Your task to perform on an android device: turn pop-ups on in chrome Image 0: 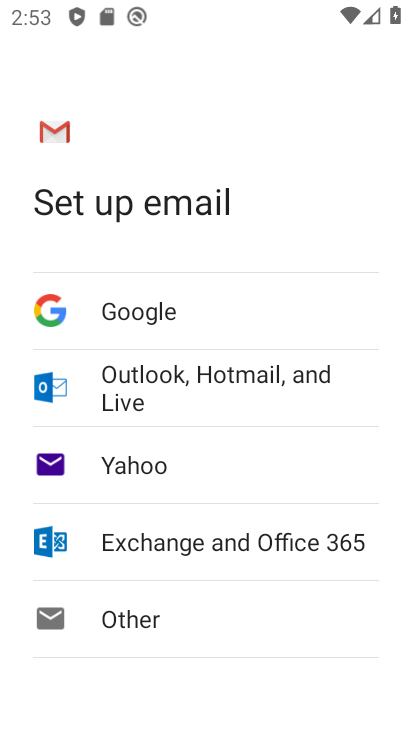
Step 0: press home button
Your task to perform on an android device: turn pop-ups on in chrome Image 1: 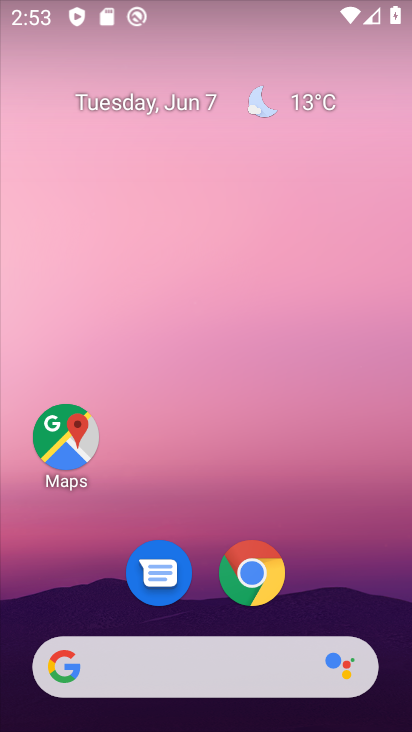
Step 1: click (246, 570)
Your task to perform on an android device: turn pop-ups on in chrome Image 2: 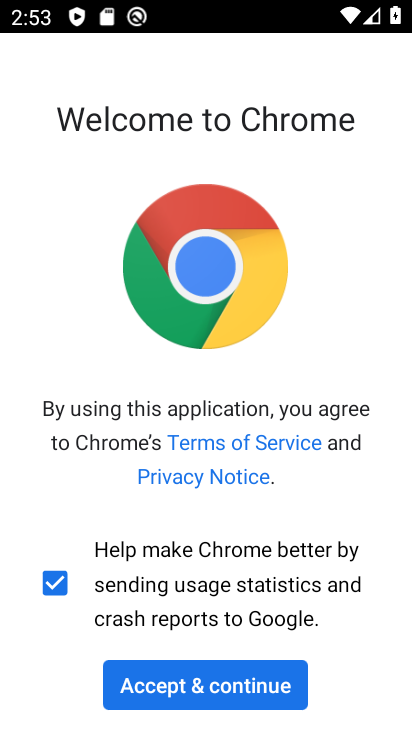
Step 2: click (161, 675)
Your task to perform on an android device: turn pop-ups on in chrome Image 3: 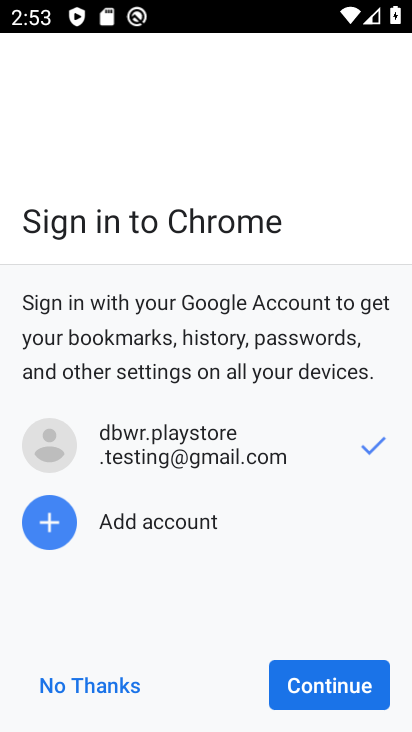
Step 3: click (76, 677)
Your task to perform on an android device: turn pop-ups on in chrome Image 4: 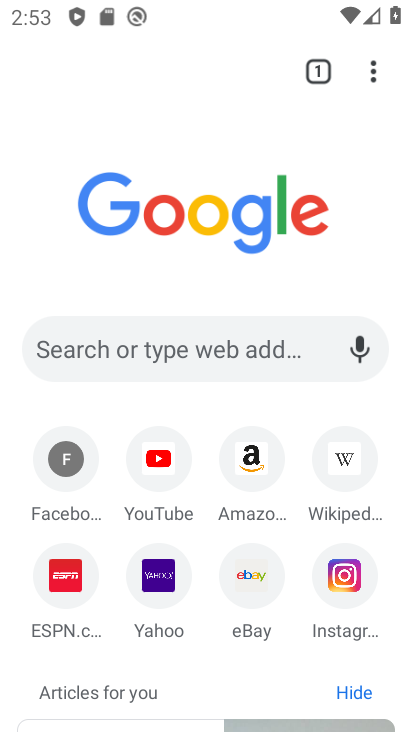
Step 4: click (372, 76)
Your task to perform on an android device: turn pop-ups on in chrome Image 5: 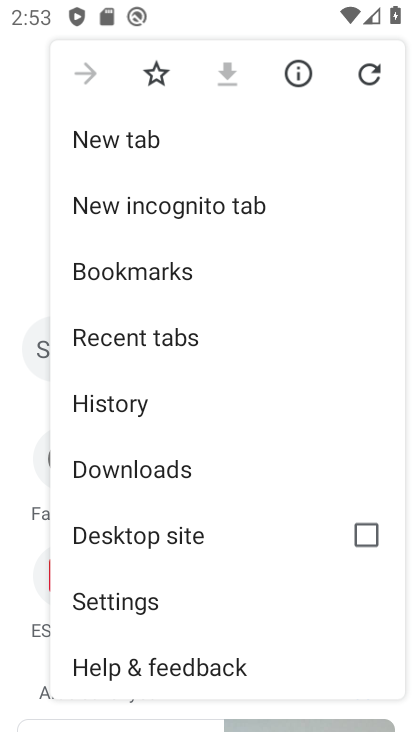
Step 5: click (103, 583)
Your task to perform on an android device: turn pop-ups on in chrome Image 6: 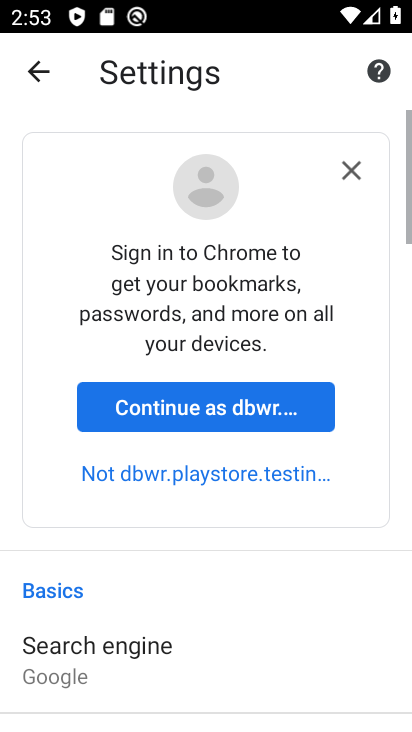
Step 6: drag from (10, 609) to (219, 109)
Your task to perform on an android device: turn pop-ups on in chrome Image 7: 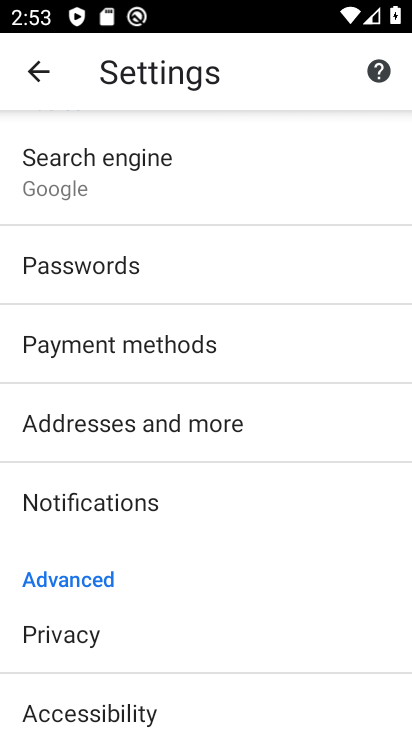
Step 7: drag from (7, 589) to (197, 239)
Your task to perform on an android device: turn pop-ups on in chrome Image 8: 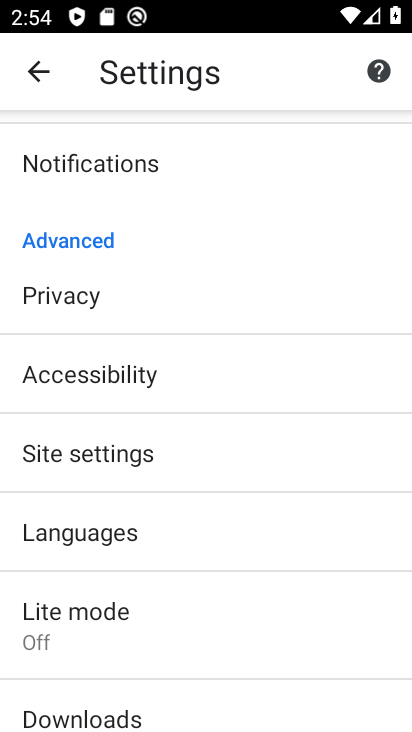
Step 8: click (67, 466)
Your task to perform on an android device: turn pop-ups on in chrome Image 9: 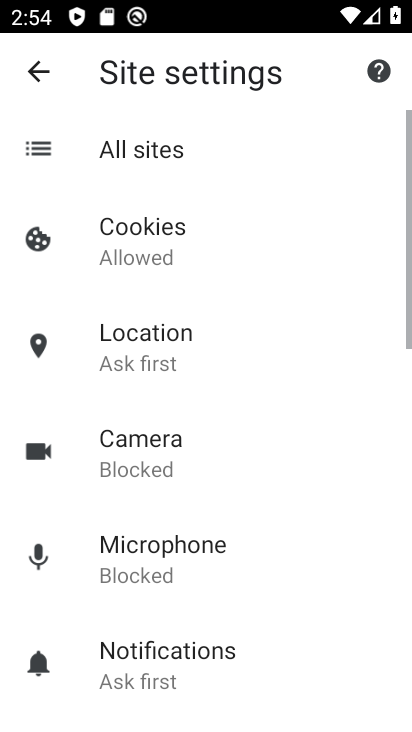
Step 9: drag from (95, 388) to (211, 196)
Your task to perform on an android device: turn pop-ups on in chrome Image 10: 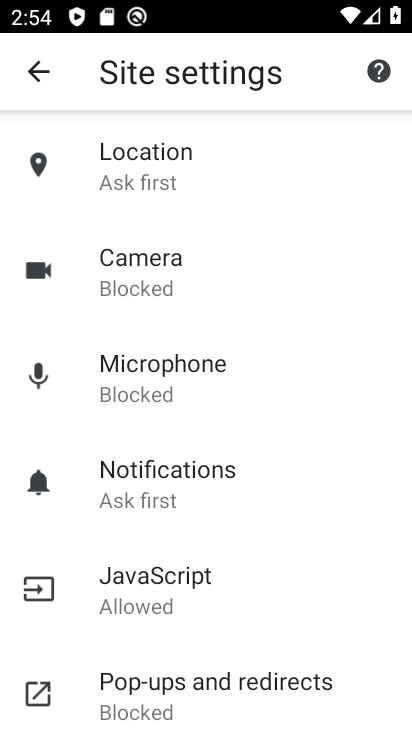
Step 10: click (107, 692)
Your task to perform on an android device: turn pop-ups on in chrome Image 11: 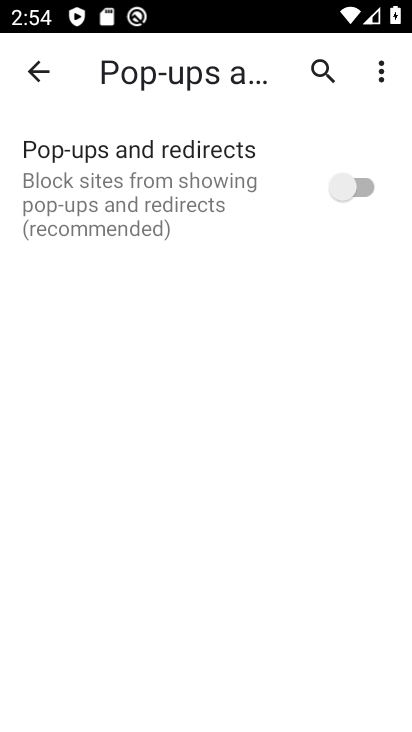
Step 11: click (351, 193)
Your task to perform on an android device: turn pop-ups on in chrome Image 12: 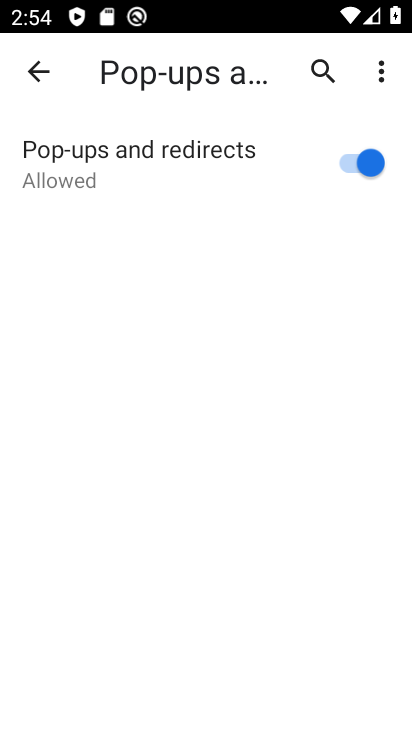
Step 12: task complete